Your task to perform on an android device: Go to CNN.com Image 0: 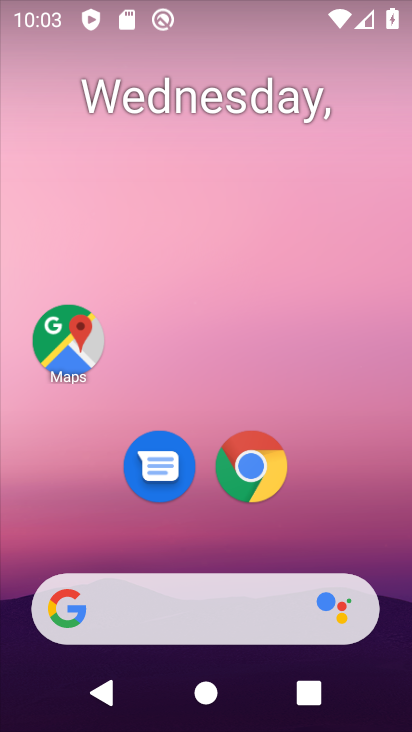
Step 0: click (246, 460)
Your task to perform on an android device: Go to CNN.com Image 1: 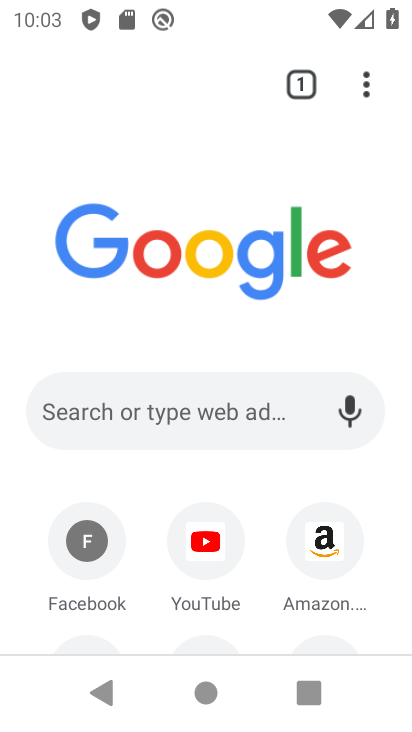
Step 1: click (212, 409)
Your task to perform on an android device: Go to CNN.com Image 2: 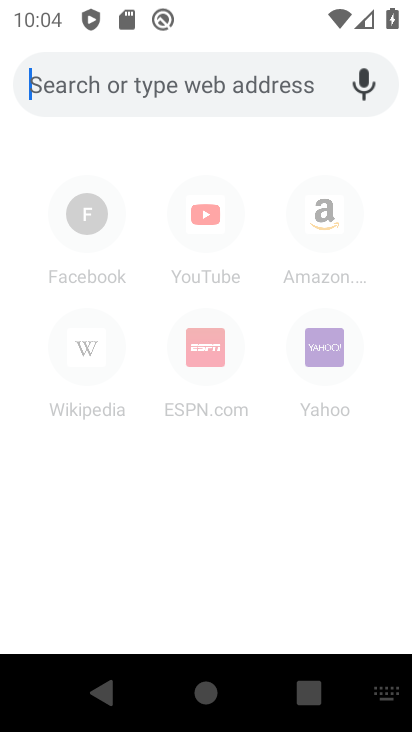
Step 2: type "CNN.com"
Your task to perform on an android device: Go to CNN.com Image 3: 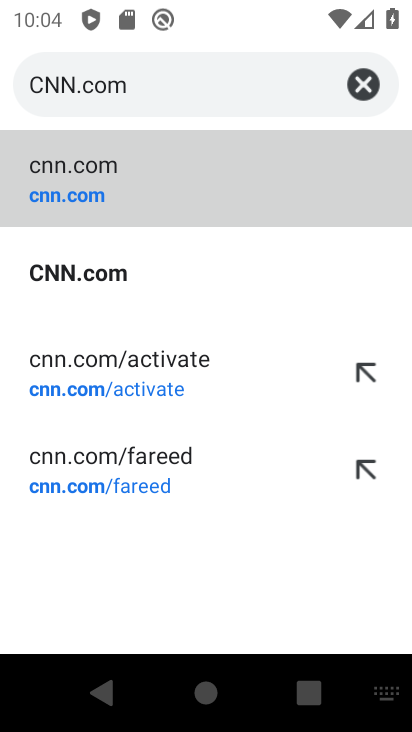
Step 3: click (91, 171)
Your task to perform on an android device: Go to CNN.com Image 4: 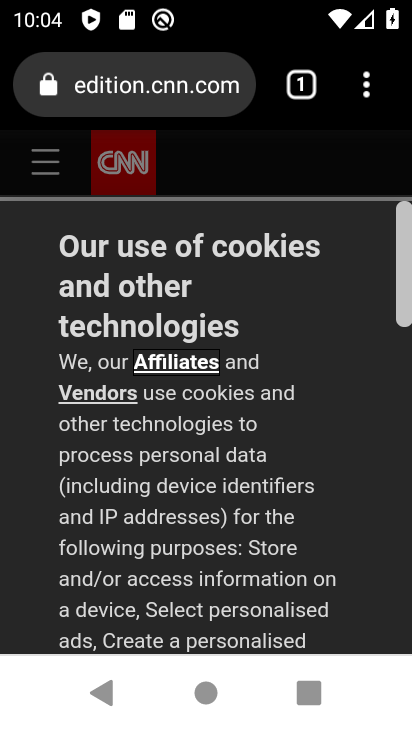
Step 4: task complete